Your task to perform on an android device: find photos in the google photos app Image 0: 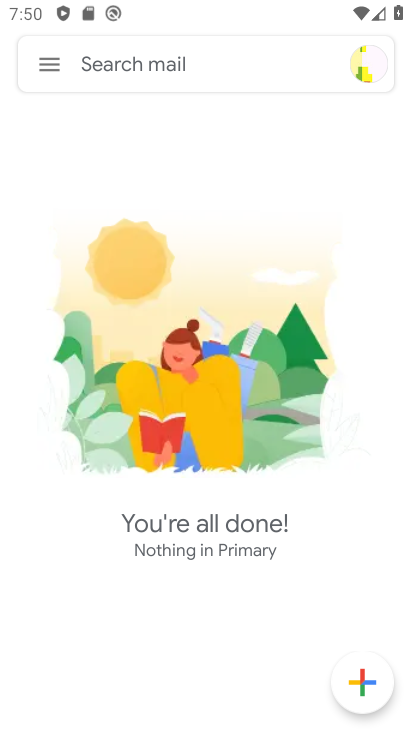
Step 0: press home button
Your task to perform on an android device: find photos in the google photos app Image 1: 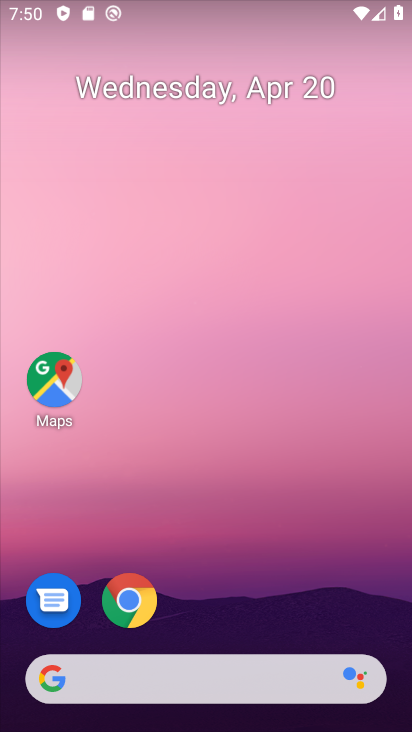
Step 1: drag from (212, 611) to (212, 155)
Your task to perform on an android device: find photos in the google photos app Image 2: 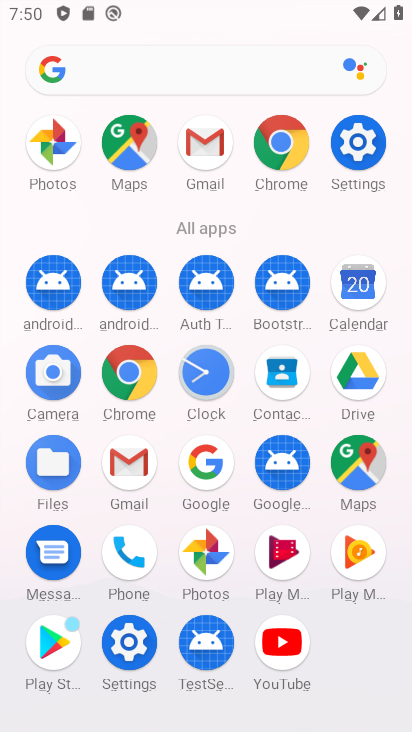
Step 2: click (197, 549)
Your task to perform on an android device: find photos in the google photos app Image 3: 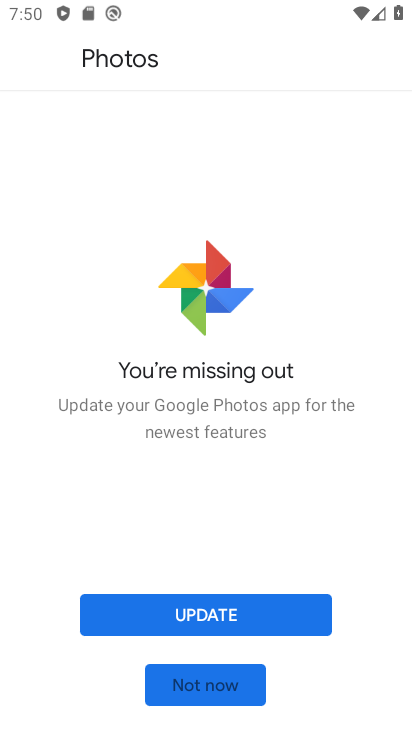
Step 3: click (209, 614)
Your task to perform on an android device: find photos in the google photos app Image 4: 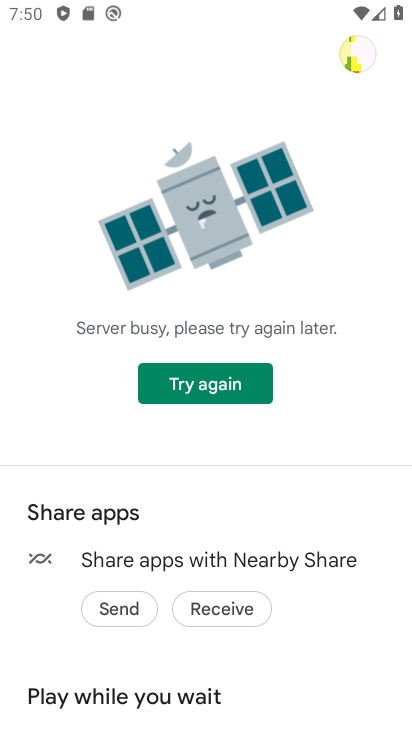
Step 4: click (194, 388)
Your task to perform on an android device: find photos in the google photos app Image 5: 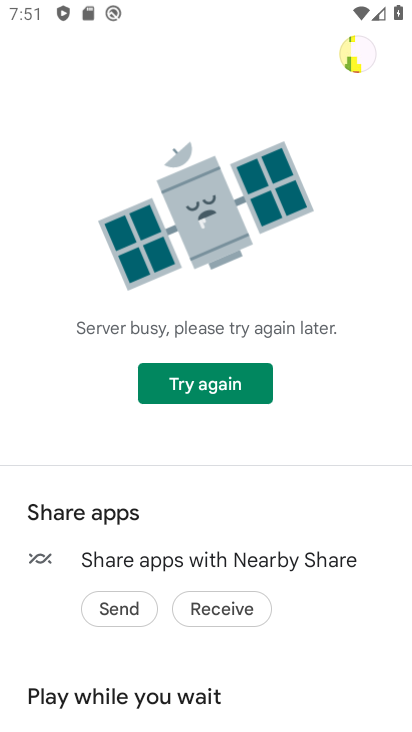
Step 5: task complete